Your task to perform on an android device: Search for sushi restaurants on Maps Image 0: 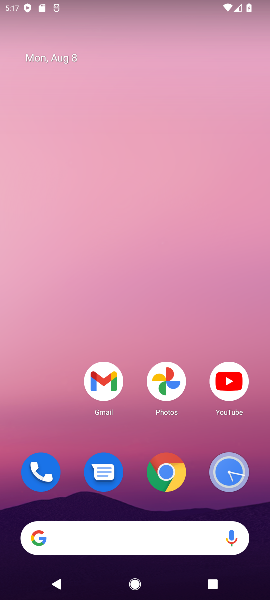
Step 0: press home button
Your task to perform on an android device: Search for sushi restaurants on Maps Image 1: 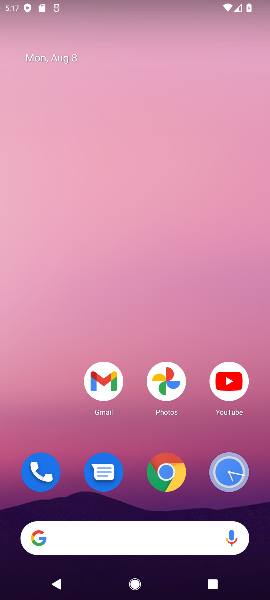
Step 1: drag from (63, 429) to (54, 104)
Your task to perform on an android device: Search for sushi restaurants on Maps Image 2: 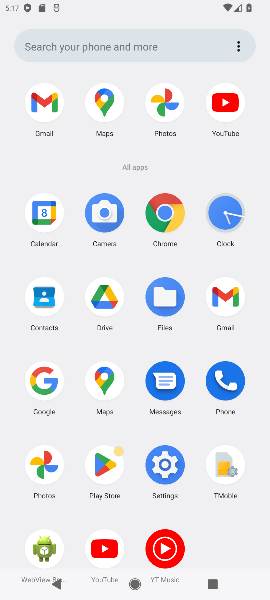
Step 2: click (105, 100)
Your task to perform on an android device: Search for sushi restaurants on Maps Image 3: 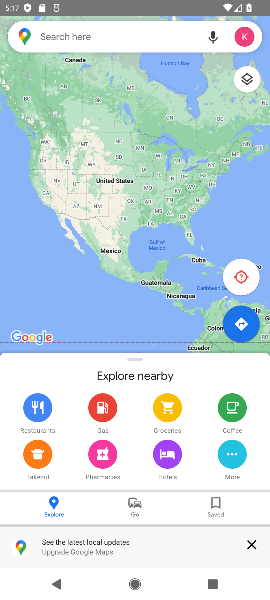
Step 3: type "sushi restaurants"
Your task to perform on an android device: Search for sushi restaurants on Maps Image 4: 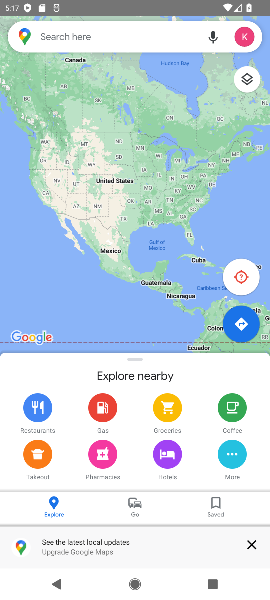
Step 4: click (83, 35)
Your task to perform on an android device: Search for sushi restaurants on Maps Image 5: 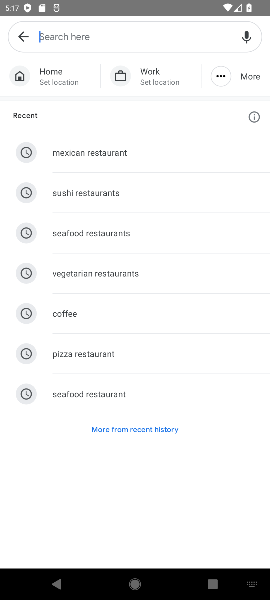
Step 5: click (59, 186)
Your task to perform on an android device: Search for sushi restaurants on Maps Image 6: 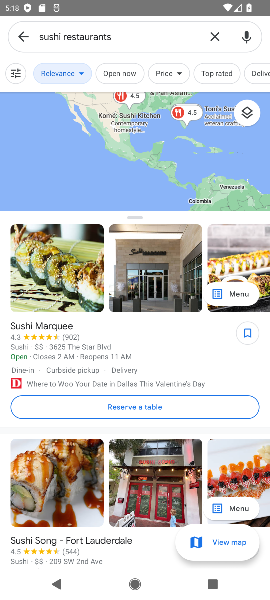
Step 6: task complete